Your task to perform on an android device: Show me popular videos on Youtube Image 0: 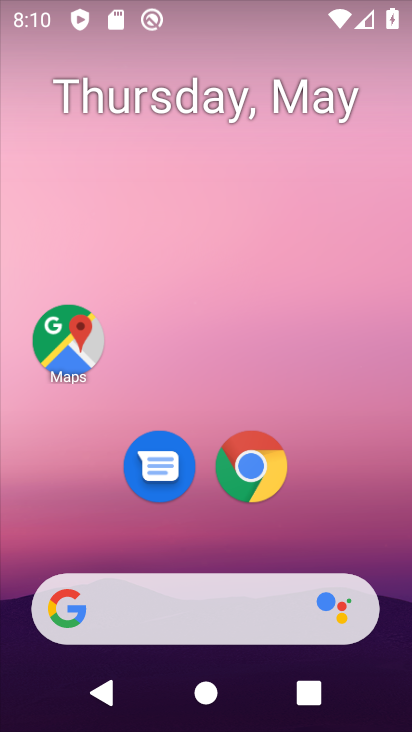
Step 0: drag from (382, 557) to (265, 154)
Your task to perform on an android device: Show me popular videos on Youtube Image 1: 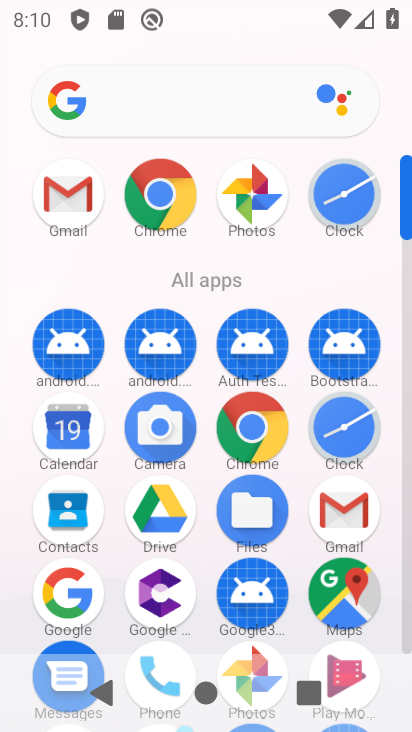
Step 1: click (284, 224)
Your task to perform on an android device: Show me popular videos on Youtube Image 2: 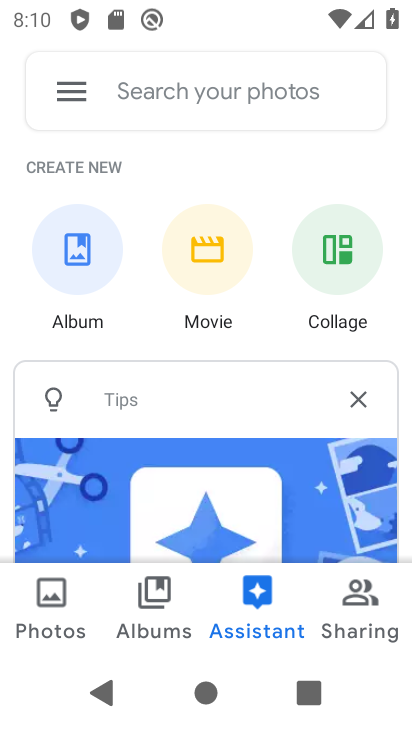
Step 2: press home button
Your task to perform on an android device: Show me popular videos on Youtube Image 3: 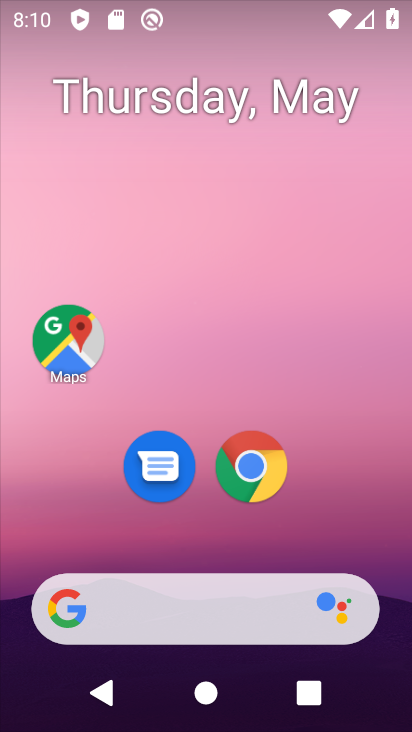
Step 3: drag from (363, 510) to (277, 110)
Your task to perform on an android device: Show me popular videos on Youtube Image 4: 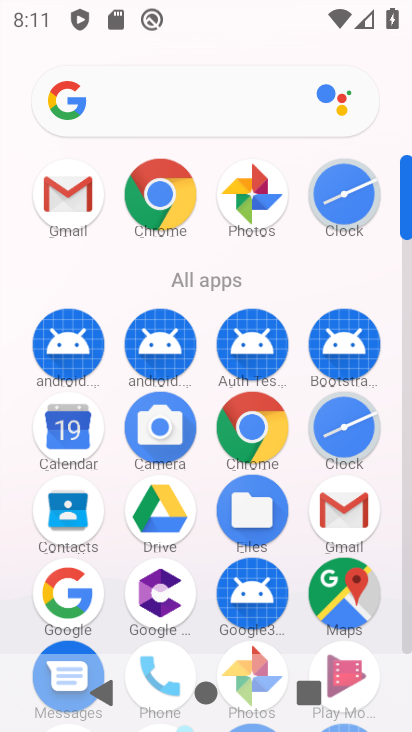
Step 4: click (408, 648)
Your task to perform on an android device: Show me popular videos on Youtube Image 5: 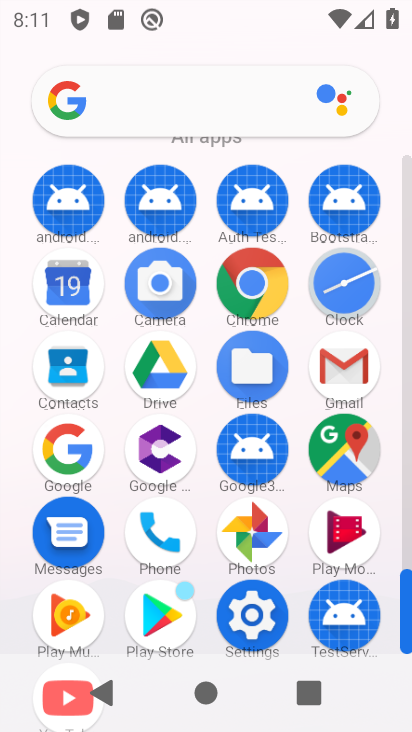
Step 5: drag from (389, 522) to (376, 324)
Your task to perform on an android device: Show me popular videos on Youtube Image 6: 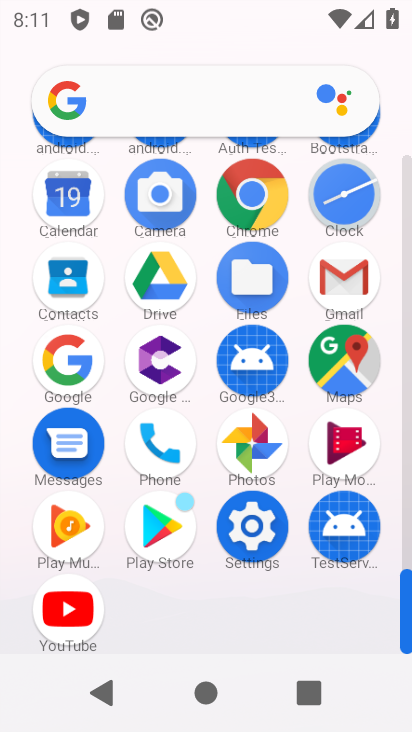
Step 6: click (78, 589)
Your task to perform on an android device: Show me popular videos on Youtube Image 7: 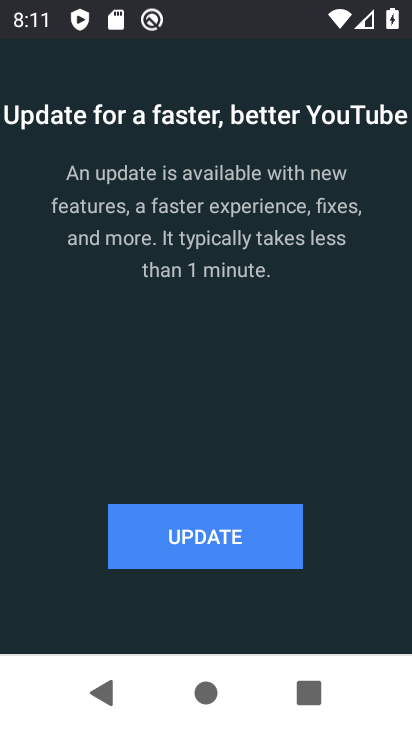
Step 7: click (175, 556)
Your task to perform on an android device: Show me popular videos on Youtube Image 8: 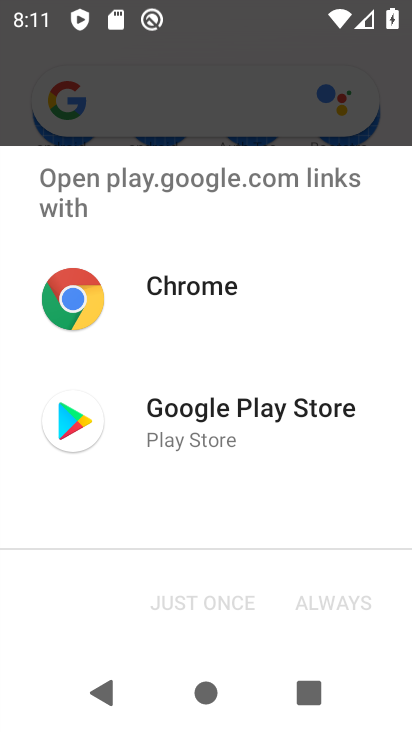
Step 8: click (257, 433)
Your task to perform on an android device: Show me popular videos on Youtube Image 9: 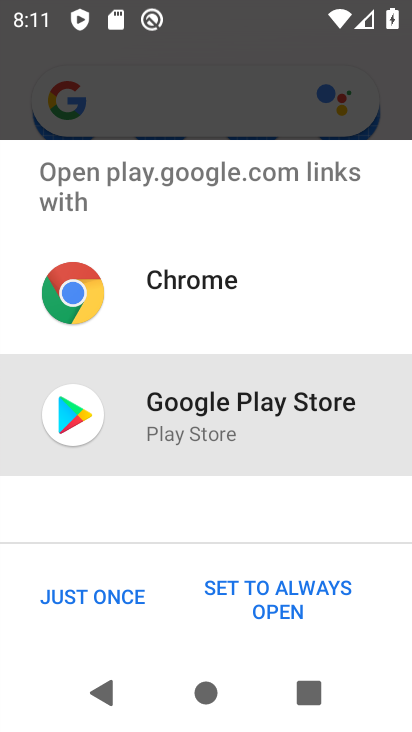
Step 9: click (123, 599)
Your task to perform on an android device: Show me popular videos on Youtube Image 10: 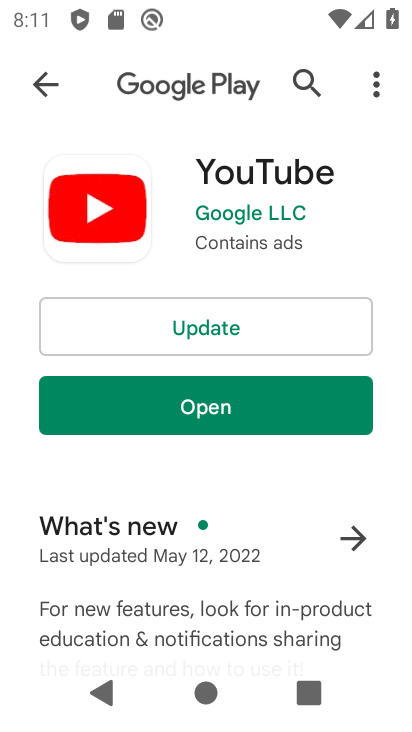
Step 10: click (304, 319)
Your task to perform on an android device: Show me popular videos on Youtube Image 11: 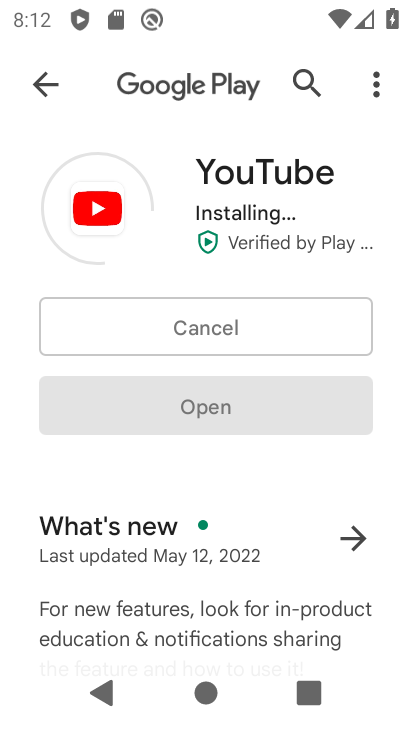
Step 11: click (304, 319)
Your task to perform on an android device: Show me popular videos on Youtube Image 12: 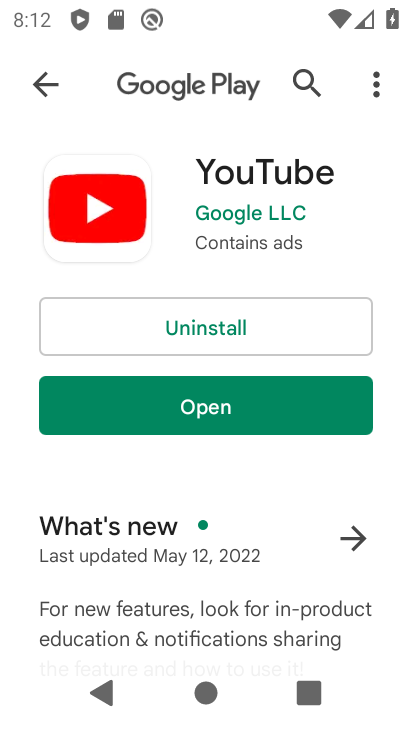
Step 12: click (267, 401)
Your task to perform on an android device: Show me popular videos on Youtube Image 13: 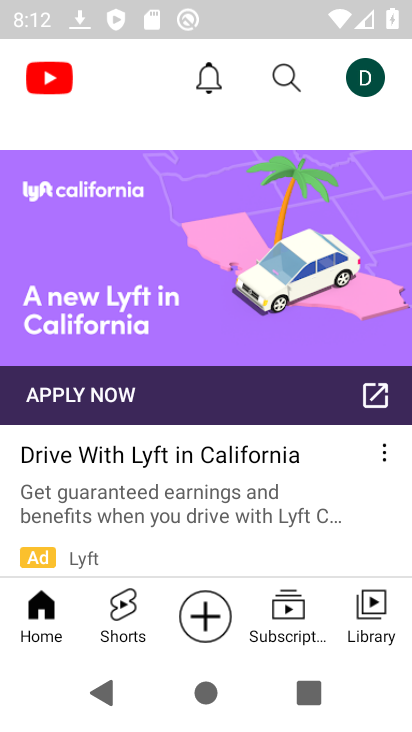
Step 13: drag from (289, 565) to (273, 620)
Your task to perform on an android device: Show me popular videos on Youtube Image 14: 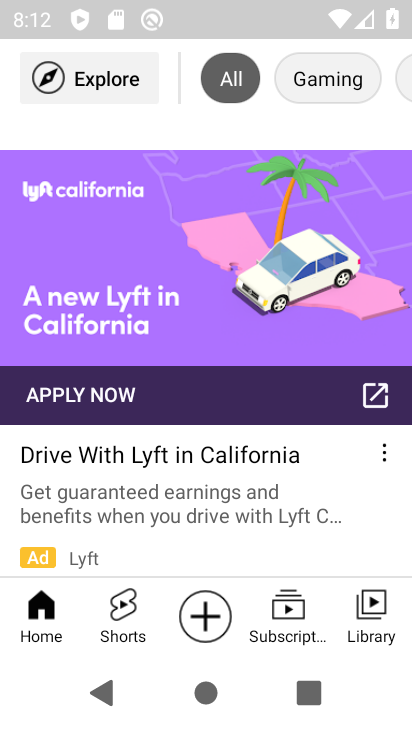
Step 14: drag from (379, 97) to (10, 78)
Your task to perform on an android device: Show me popular videos on Youtube Image 15: 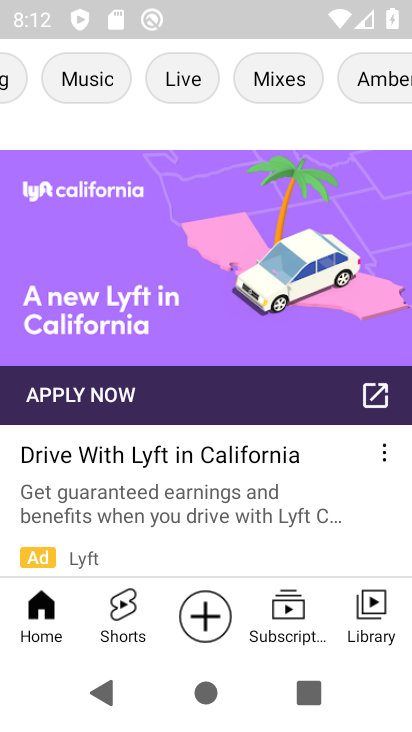
Step 15: drag from (393, 78) to (18, 85)
Your task to perform on an android device: Show me popular videos on Youtube Image 16: 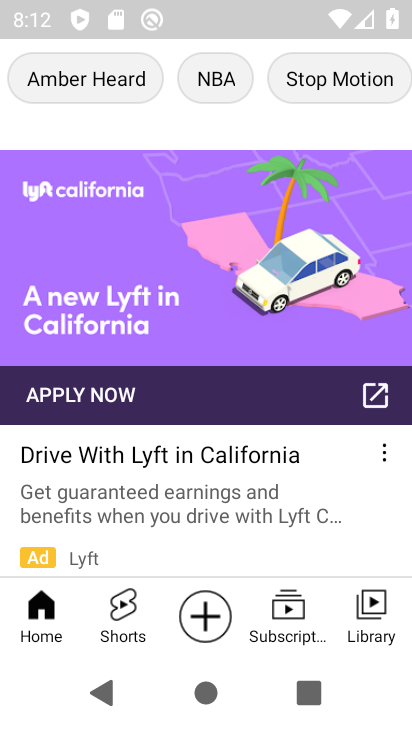
Step 16: click (131, 600)
Your task to perform on an android device: Show me popular videos on Youtube Image 17: 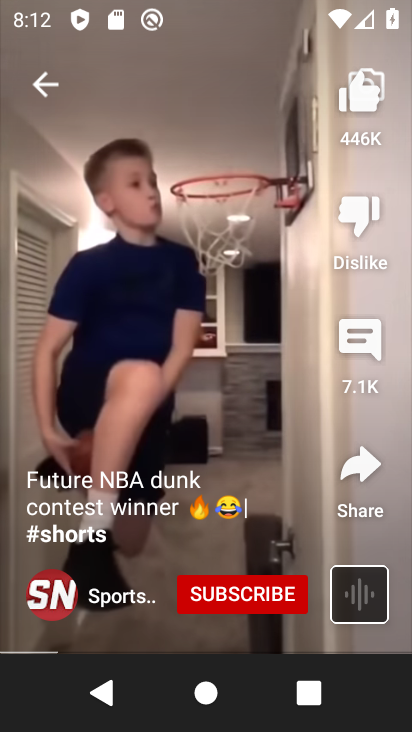
Step 17: click (46, 75)
Your task to perform on an android device: Show me popular videos on Youtube Image 18: 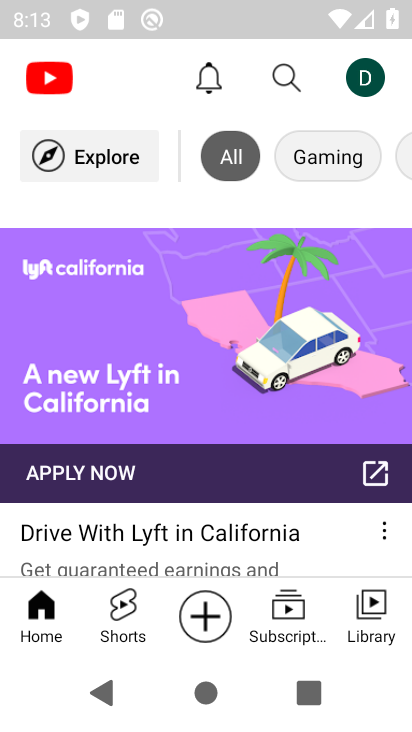
Step 18: task complete